Your task to perform on an android device: open a bookmark in the chrome app Image 0: 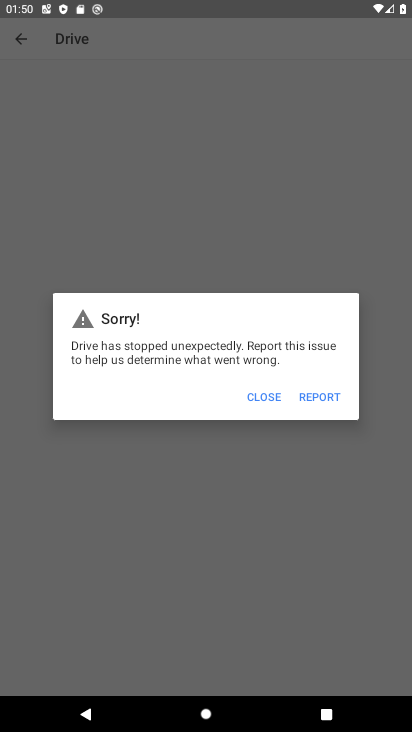
Step 0: press home button
Your task to perform on an android device: open a bookmark in the chrome app Image 1: 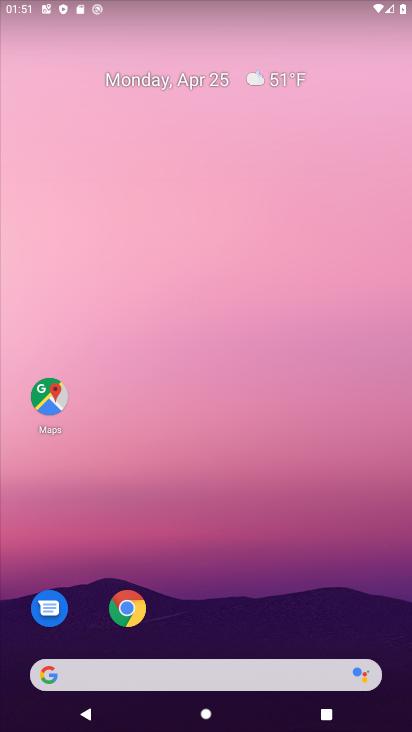
Step 1: click (113, 604)
Your task to perform on an android device: open a bookmark in the chrome app Image 2: 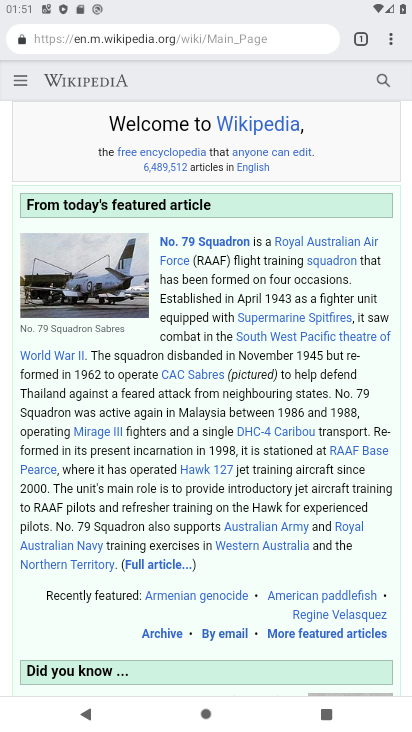
Step 2: click (398, 32)
Your task to perform on an android device: open a bookmark in the chrome app Image 3: 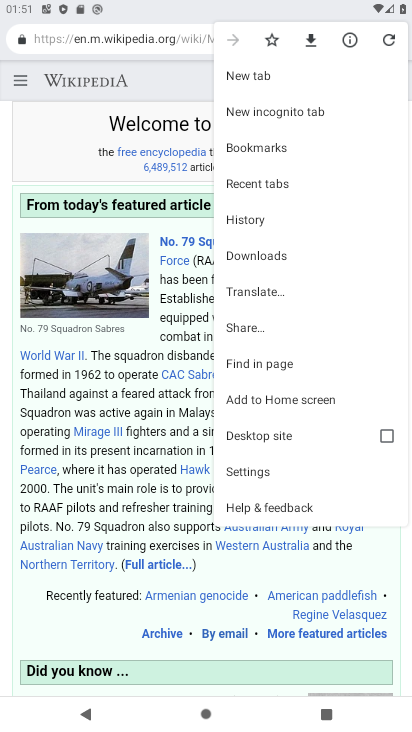
Step 3: click (286, 148)
Your task to perform on an android device: open a bookmark in the chrome app Image 4: 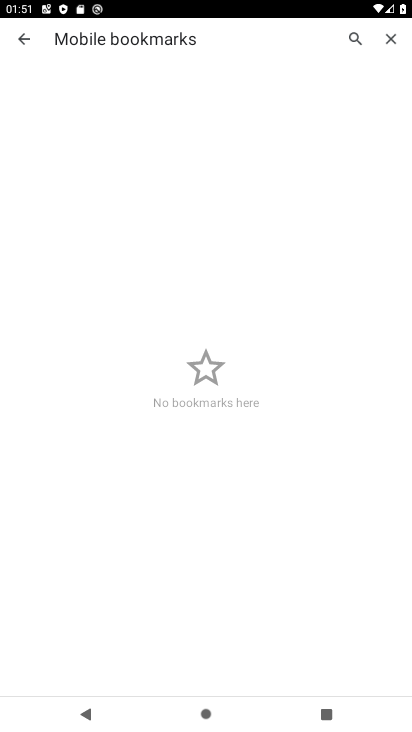
Step 4: task complete